Your task to perform on an android device: Show me the alarms in the clock app Image 0: 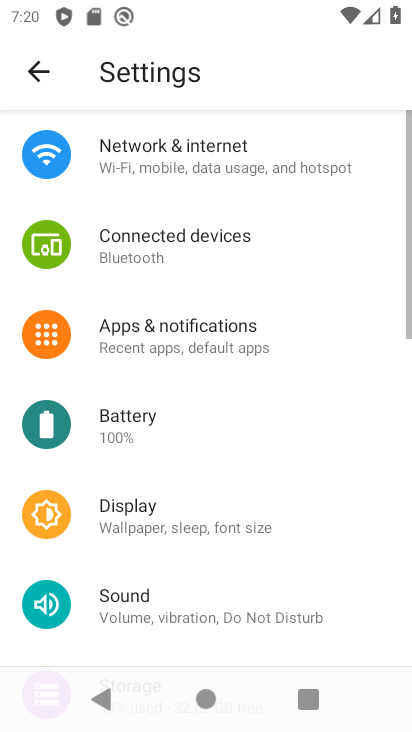
Step 0: press home button
Your task to perform on an android device: Show me the alarms in the clock app Image 1: 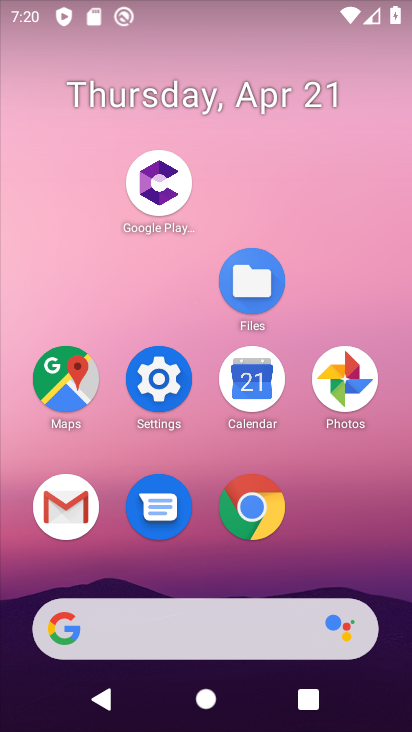
Step 1: drag from (308, 509) to (309, 39)
Your task to perform on an android device: Show me the alarms in the clock app Image 2: 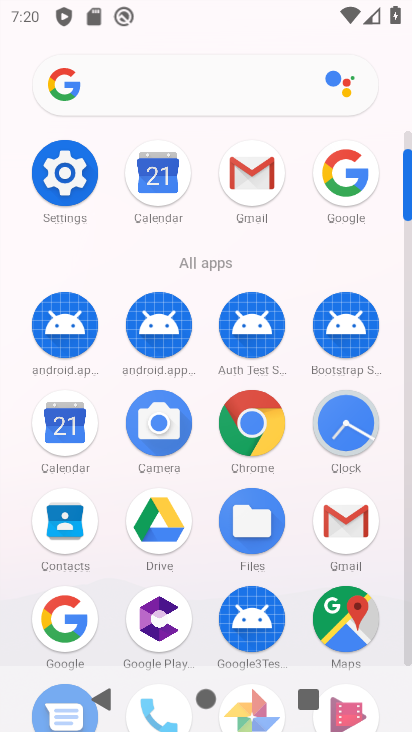
Step 2: click (342, 426)
Your task to perform on an android device: Show me the alarms in the clock app Image 3: 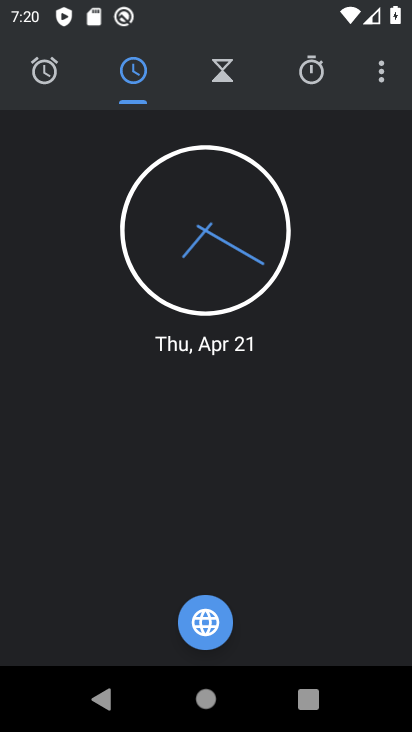
Step 3: click (45, 79)
Your task to perform on an android device: Show me the alarms in the clock app Image 4: 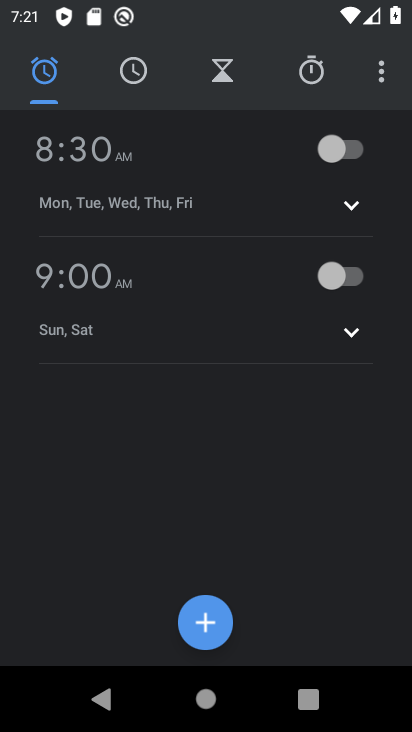
Step 4: task complete